Your task to perform on an android device: find which apps use the phone's location Image 0: 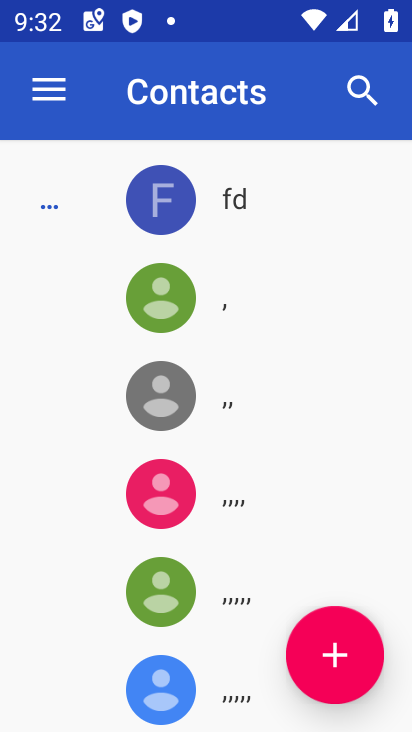
Step 0: press home button
Your task to perform on an android device: find which apps use the phone's location Image 1: 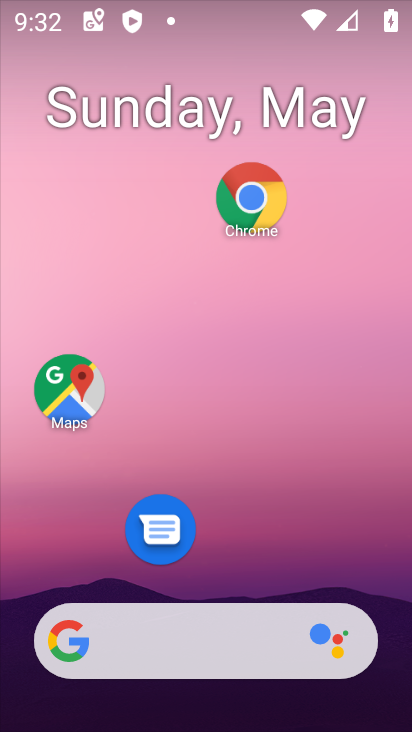
Step 1: drag from (267, 573) to (288, 184)
Your task to perform on an android device: find which apps use the phone's location Image 2: 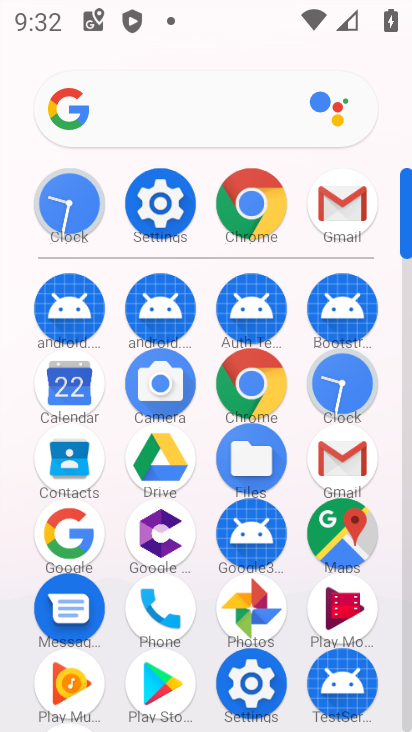
Step 2: click (156, 203)
Your task to perform on an android device: find which apps use the phone's location Image 3: 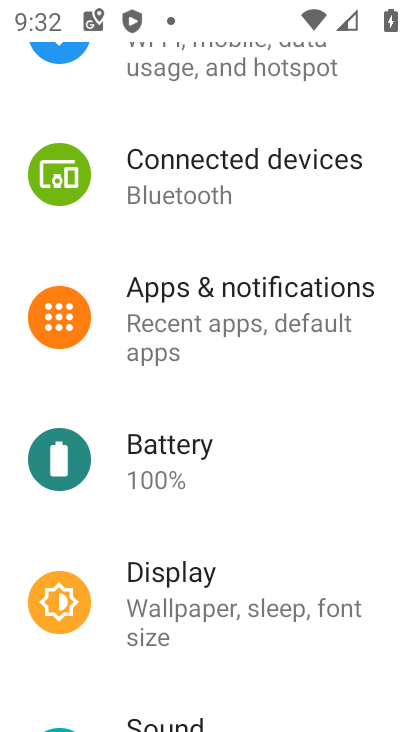
Step 3: drag from (168, 295) to (228, 149)
Your task to perform on an android device: find which apps use the phone's location Image 4: 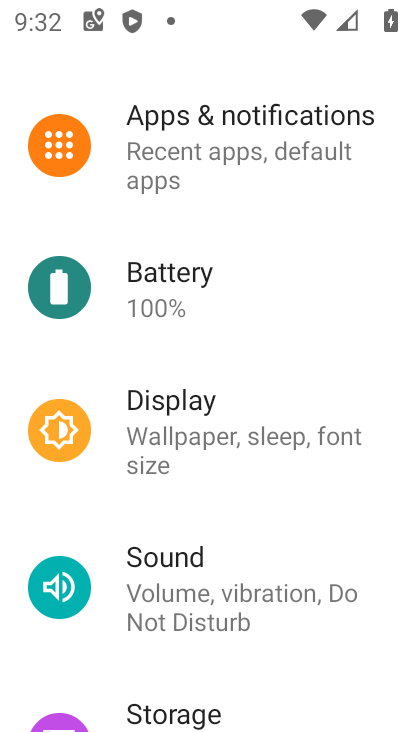
Step 4: drag from (126, 610) to (212, 302)
Your task to perform on an android device: find which apps use the phone's location Image 5: 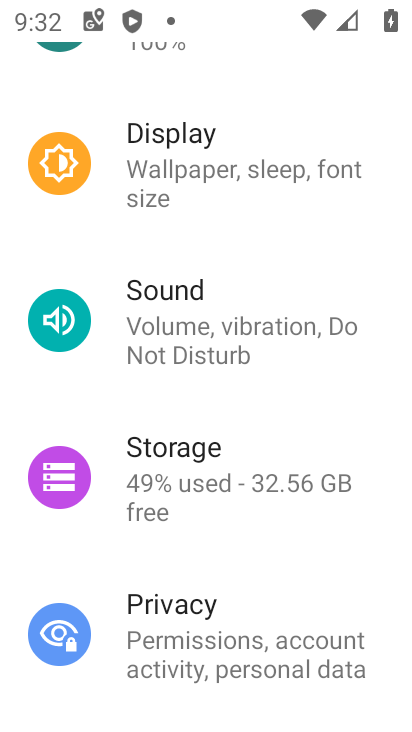
Step 5: drag from (185, 578) to (246, 329)
Your task to perform on an android device: find which apps use the phone's location Image 6: 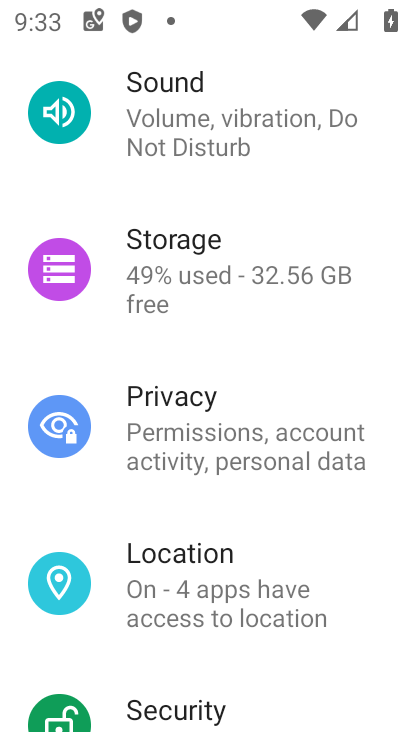
Step 6: click (218, 591)
Your task to perform on an android device: find which apps use the phone's location Image 7: 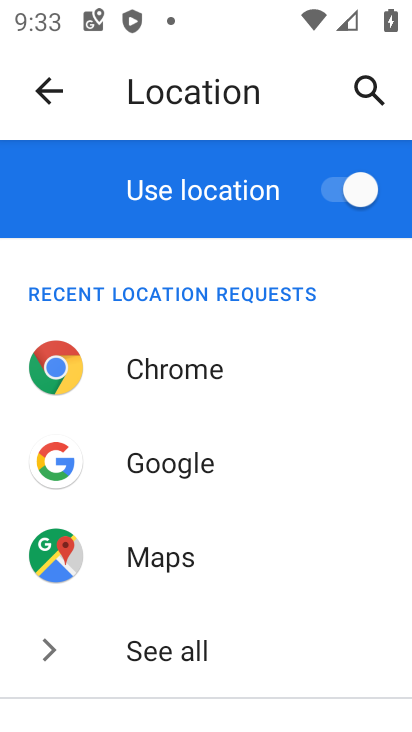
Step 7: drag from (112, 645) to (213, 146)
Your task to perform on an android device: find which apps use the phone's location Image 8: 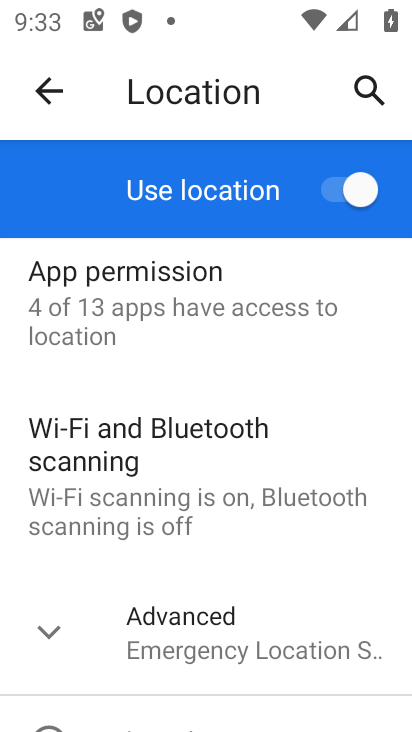
Step 8: click (204, 299)
Your task to perform on an android device: find which apps use the phone's location Image 9: 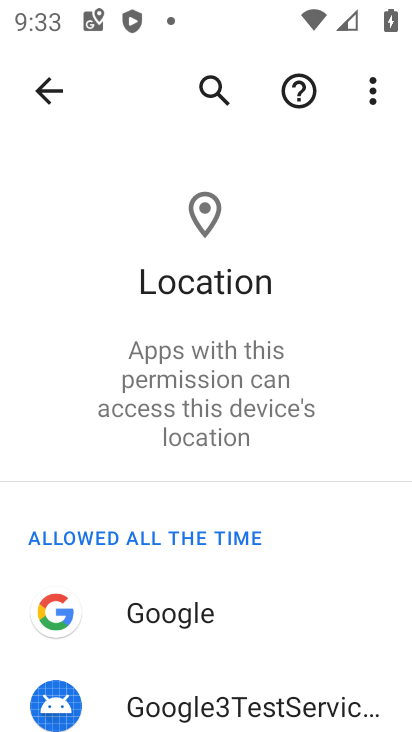
Step 9: task complete